Your task to perform on an android device: change the clock style Image 0: 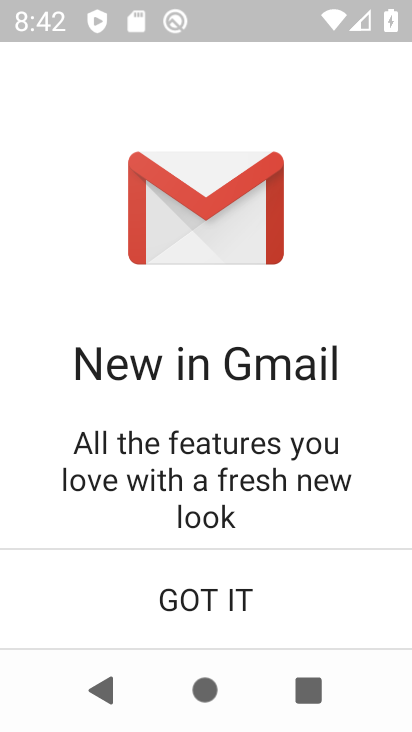
Step 0: press home button
Your task to perform on an android device: change the clock style Image 1: 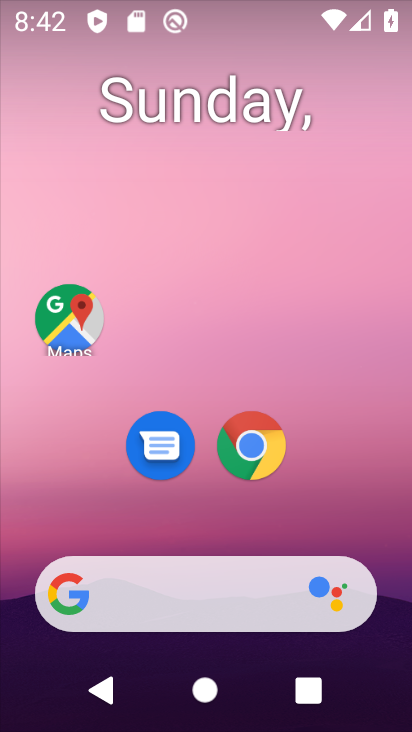
Step 1: drag from (333, 510) to (194, 21)
Your task to perform on an android device: change the clock style Image 2: 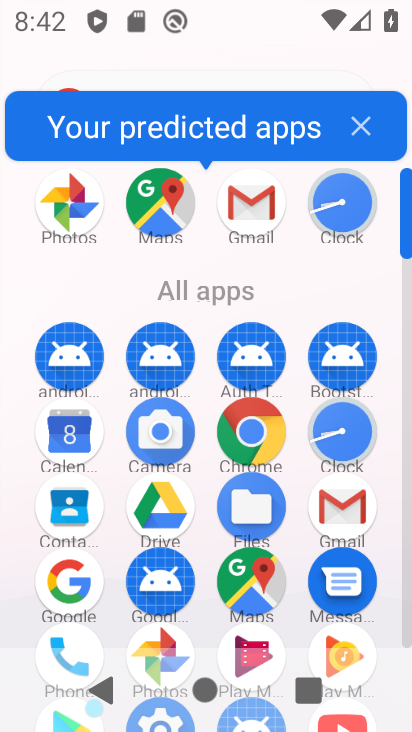
Step 2: click (344, 214)
Your task to perform on an android device: change the clock style Image 3: 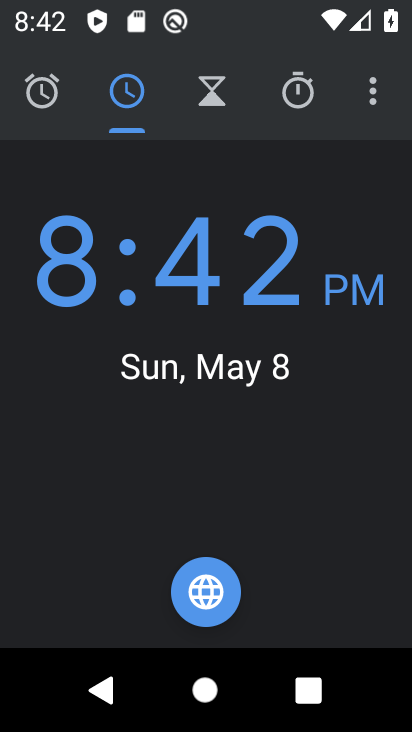
Step 3: click (370, 96)
Your task to perform on an android device: change the clock style Image 4: 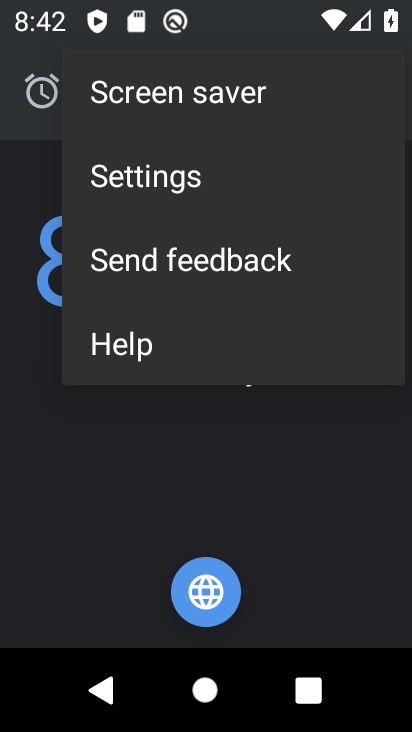
Step 4: click (170, 178)
Your task to perform on an android device: change the clock style Image 5: 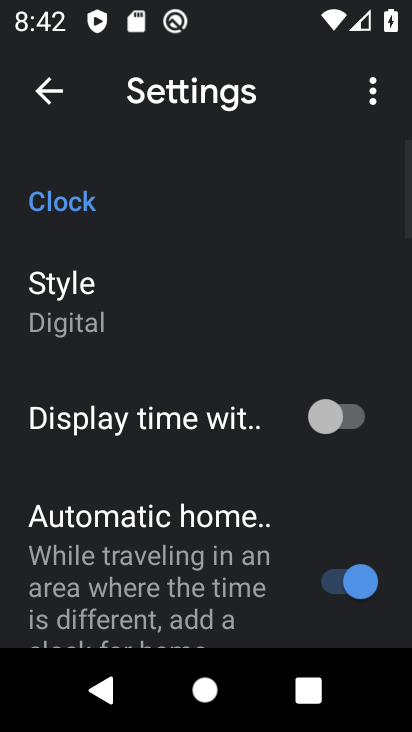
Step 5: click (70, 301)
Your task to perform on an android device: change the clock style Image 6: 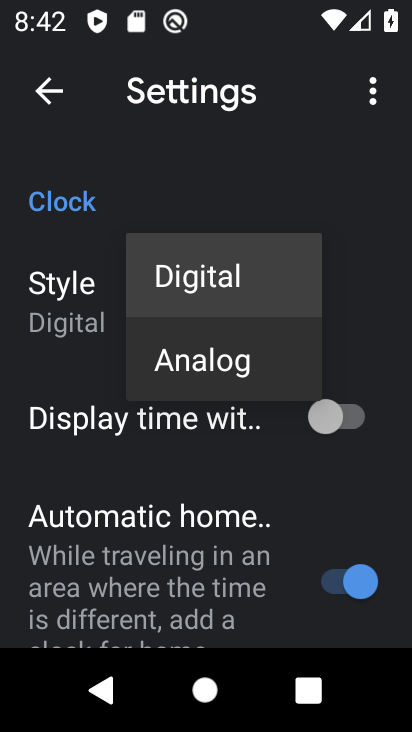
Step 6: click (224, 352)
Your task to perform on an android device: change the clock style Image 7: 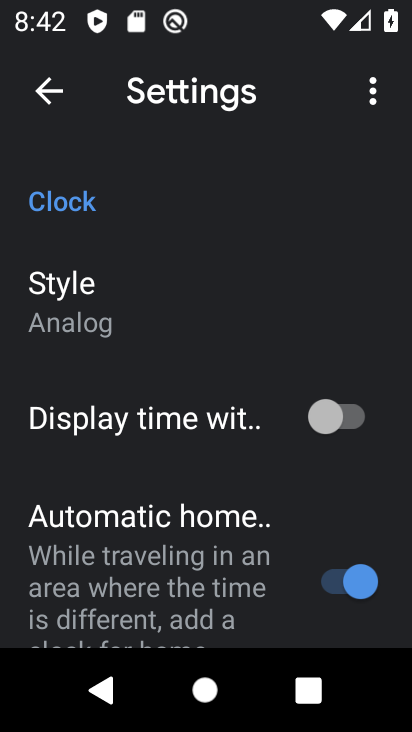
Step 7: task complete